Your task to perform on an android device: Go to accessibility settings Image 0: 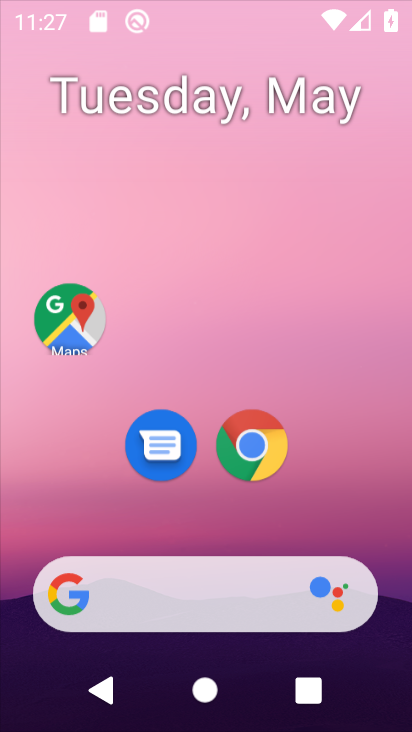
Step 0: press home button
Your task to perform on an android device: Go to accessibility settings Image 1: 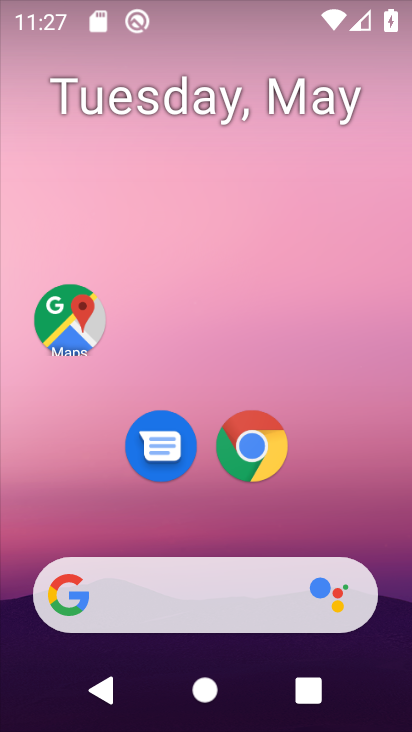
Step 1: drag from (364, 455) to (233, 3)
Your task to perform on an android device: Go to accessibility settings Image 2: 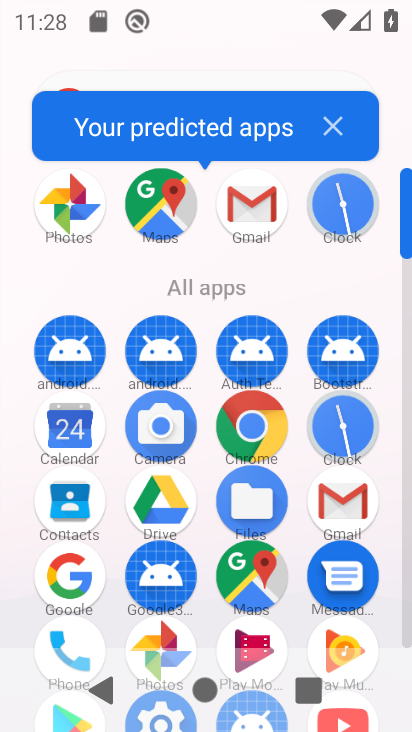
Step 2: click (406, 646)
Your task to perform on an android device: Go to accessibility settings Image 3: 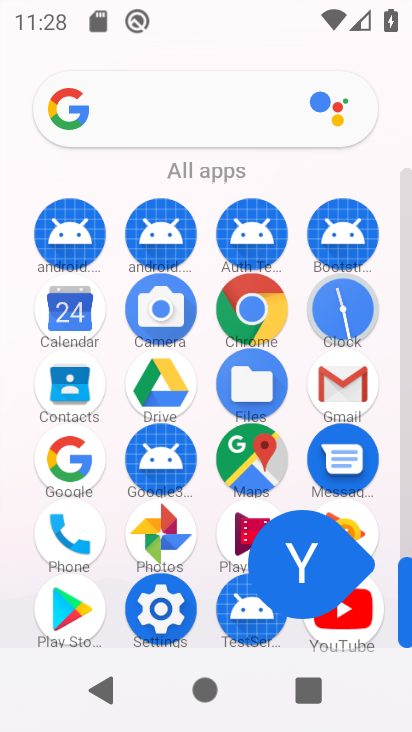
Step 3: click (406, 634)
Your task to perform on an android device: Go to accessibility settings Image 4: 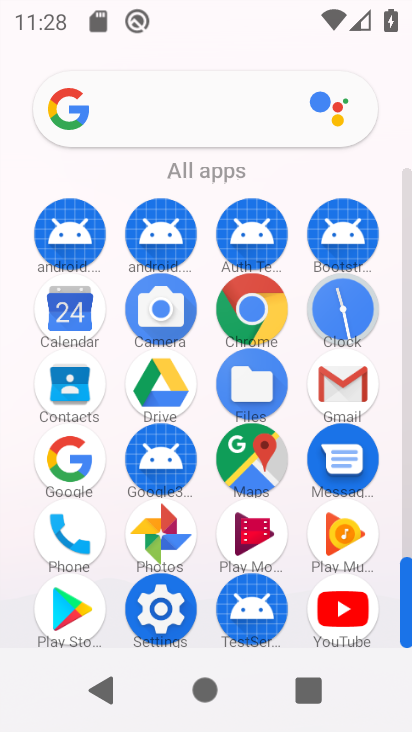
Step 4: click (146, 629)
Your task to perform on an android device: Go to accessibility settings Image 5: 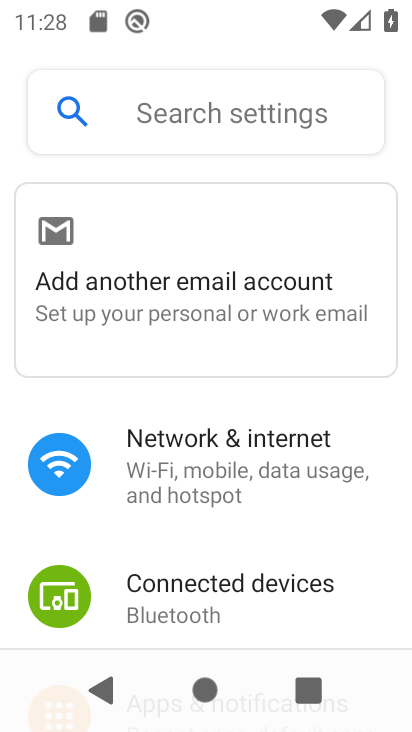
Step 5: drag from (144, 629) to (178, 137)
Your task to perform on an android device: Go to accessibility settings Image 6: 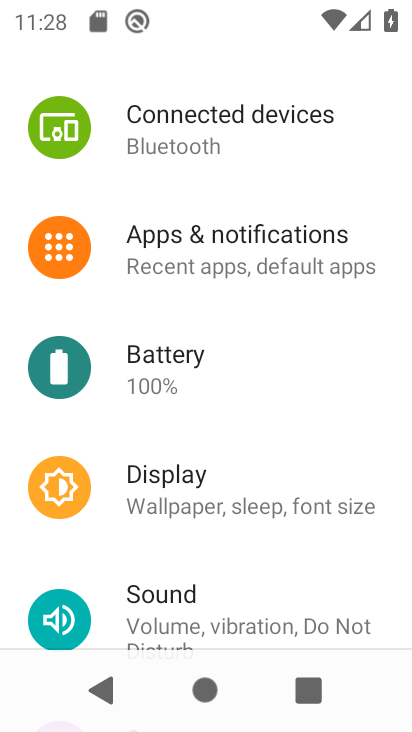
Step 6: drag from (197, 602) to (243, 121)
Your task to perform on an android device: Go to accessibility settings Image 7: 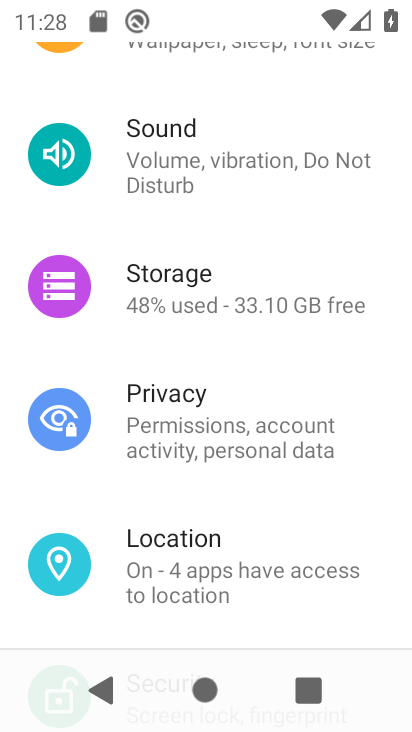
Step 7: drag from (186, 603) to (202, 217)
Your task to perform on an android device: Go to accessibility settings Image 8: 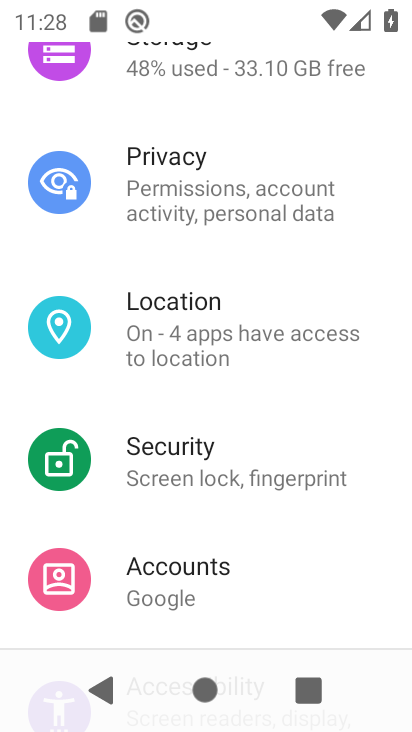
Step 8: drag from (180, 599) to (221, 118)
Your task to perform on an android device: Go to accessibility settings Image 9: 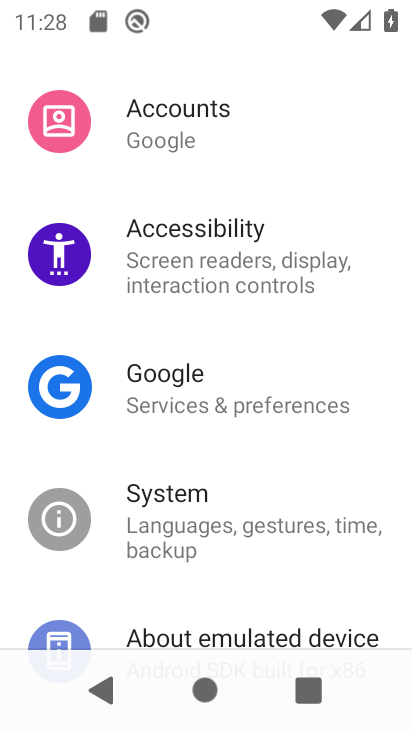
Step 9: click (208, 265)
Your task to perform on an android device: Go to accessibility settings Image 10: 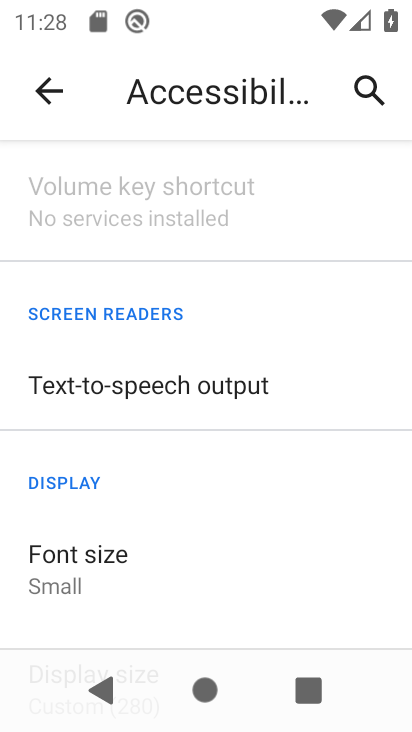
Step 10: task complete